Your task to perform on an android device: Go to Wikipedia Image 0: 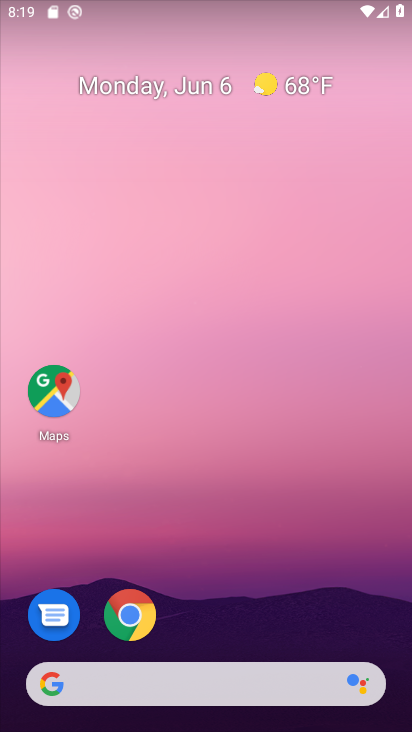
Step 0: drag from (182, 662) to (173, 146)
Your task to perform on an android device: Go to Wikipedia Image 1: 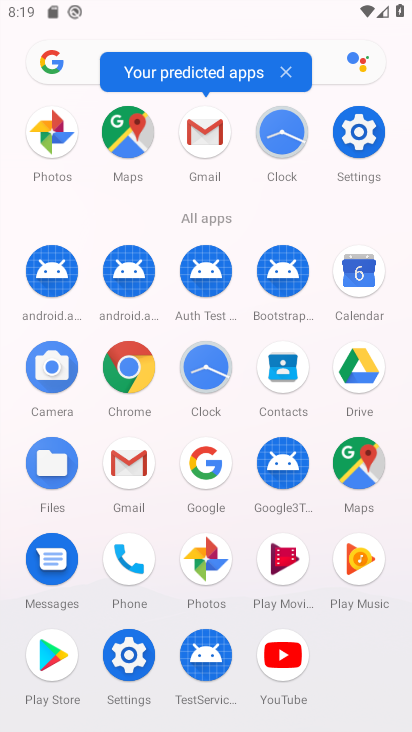
Step 1: click (128, 380)
Your task to perform on an android device: Go to Wikipedia Image 2: 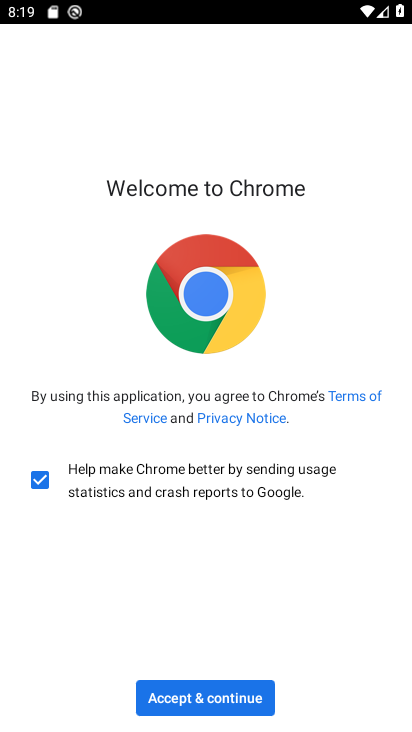
Step 2: click (191, 700)
Your task to perform on an android device: Go to Wikipedia Image 3: 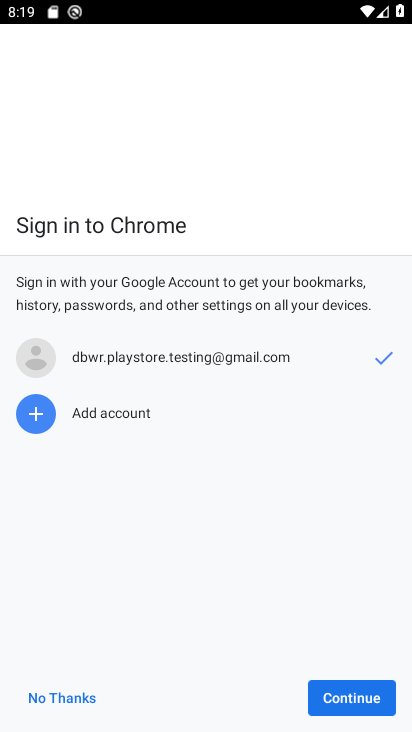
Step 3: click (342, 704)
Your task to perform on an android device: Go to Wikipedia Image 4: 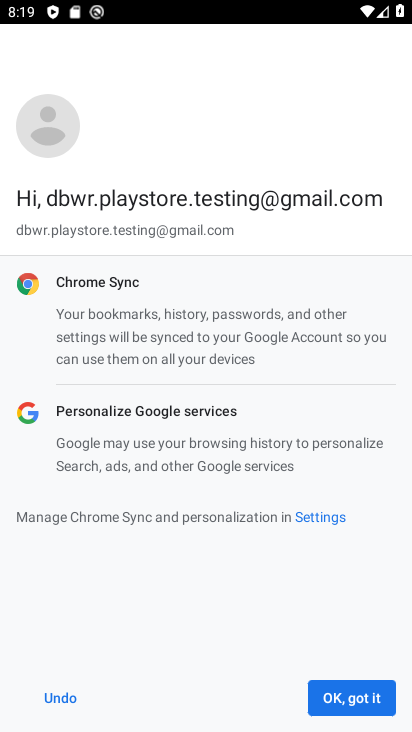
Step 4: click (342, 698)
Your task to perform on an android device: Go to Wikipedia Image 5: 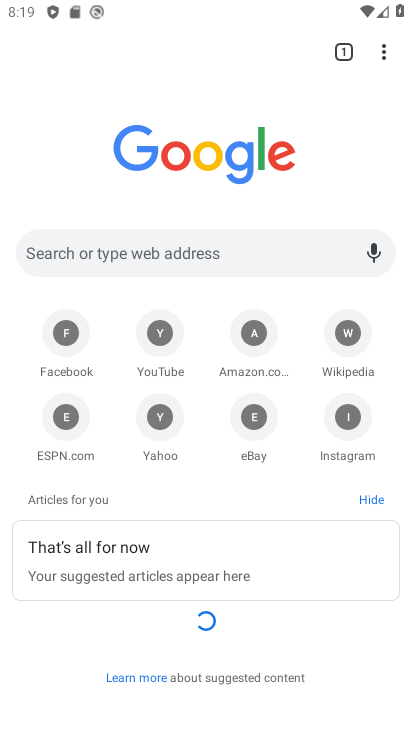
Step 5: click (187, 249)
Your task to perform on an android device: Go to Wikipedia Image 6: 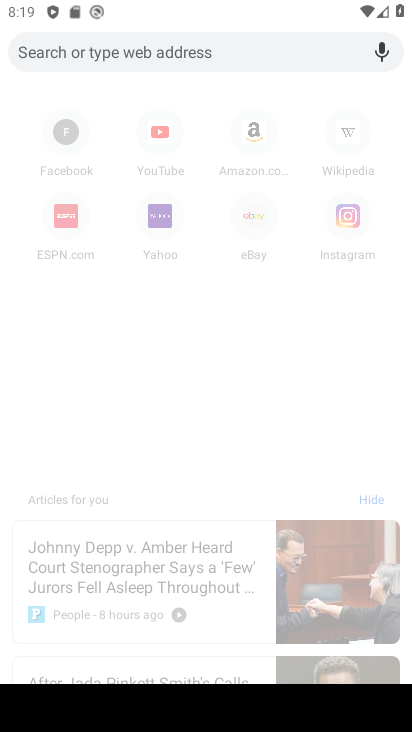
Step 6: type "wikipedia"
Your task to perform on an android device: Go to Wikipedia Image 7: 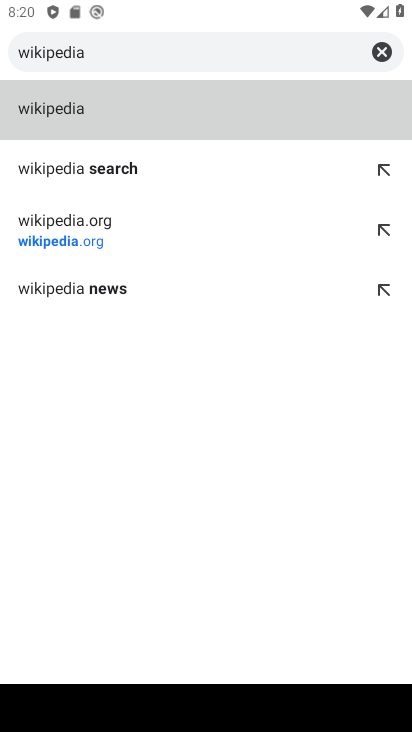
Step 7: click (93, 248)
Your task to perform on an android device: Go to Wikipedia Image 8: 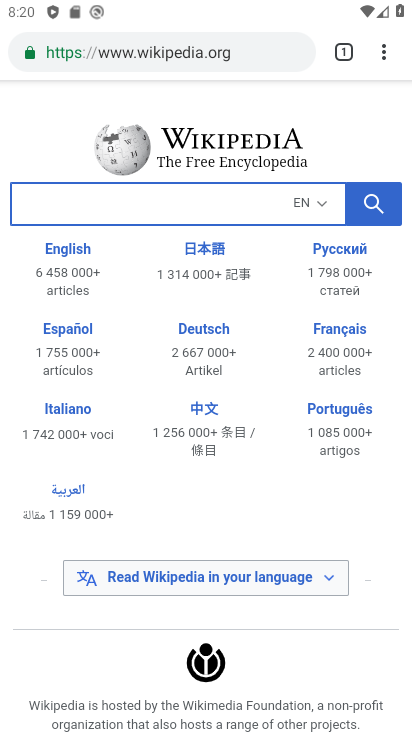
Step 8: task complete